Your task to perform on an android device: Go to accessibility settings Image 0: 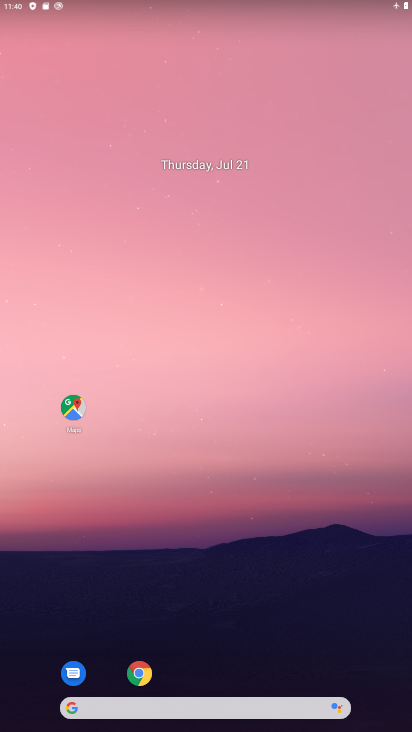
Step 0: click (409, 424)
Your task to perform on an android device: Go to accessibility settings Image 1: 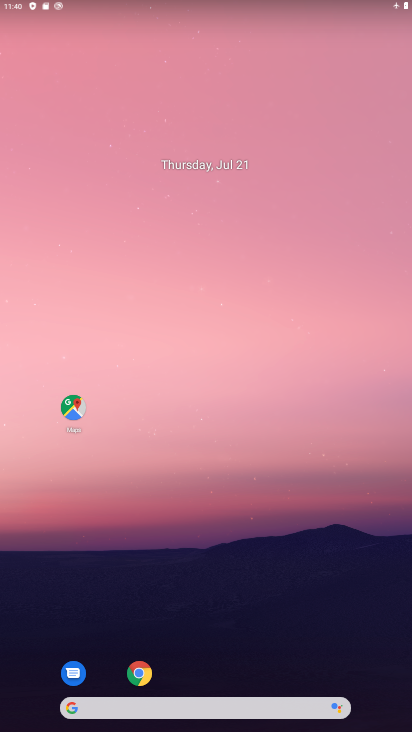
Step 1: drag from (254, 587) to (262, 37)
Your task to perform on an android device: Go to accessibility settings Image 2: 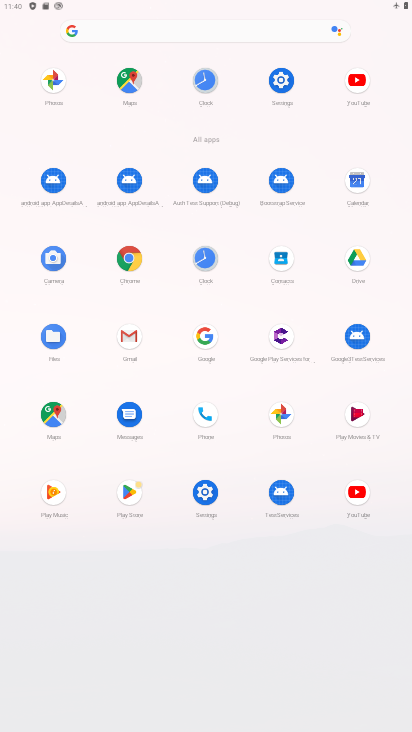
Step 2: click (201, 485)
Your task to perform on an android device: Go to accessibility settings Image 3: 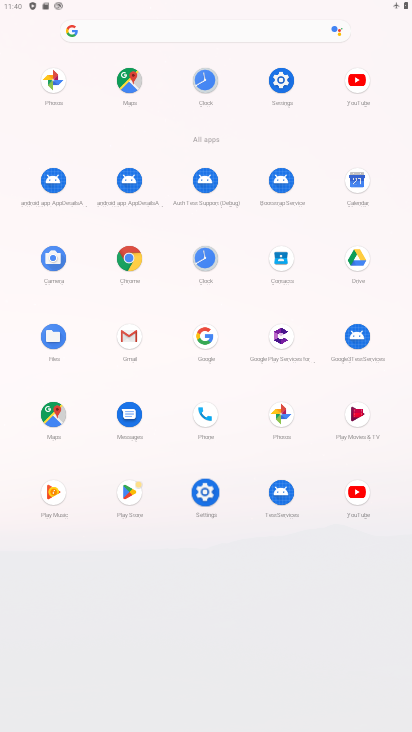
Step 3: click (201, 485)
Your task to perform on an android device: Go to accessibility settings Image 4: 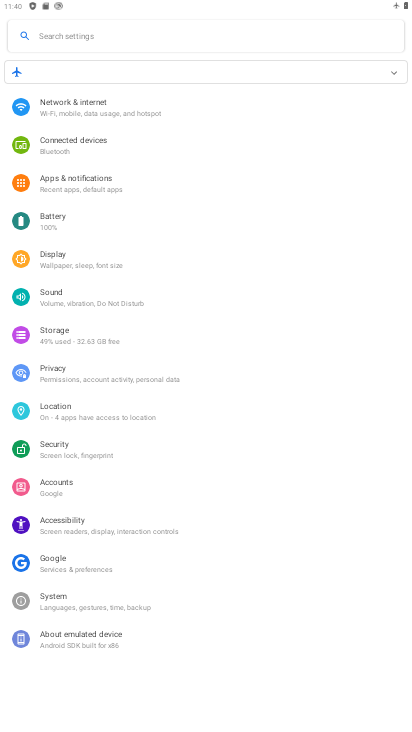
Step 4: click (72, 524)
Your task to perform on an android device: Go to accessibility settings Image 5: 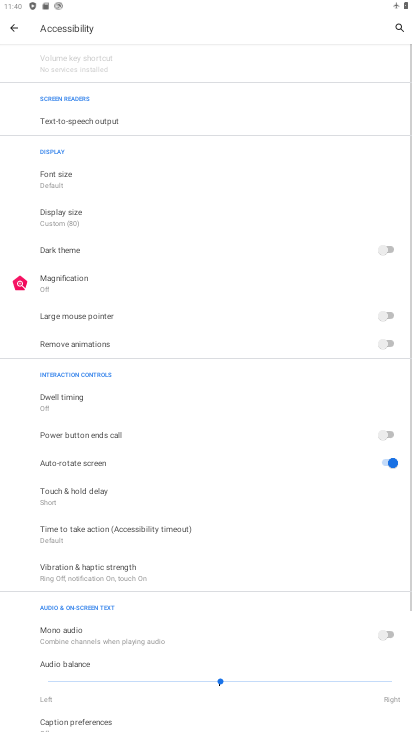
Step 5: task complete